Your task to perform on an android device: Open Youtube and go to the subscriptions tab Image 0: 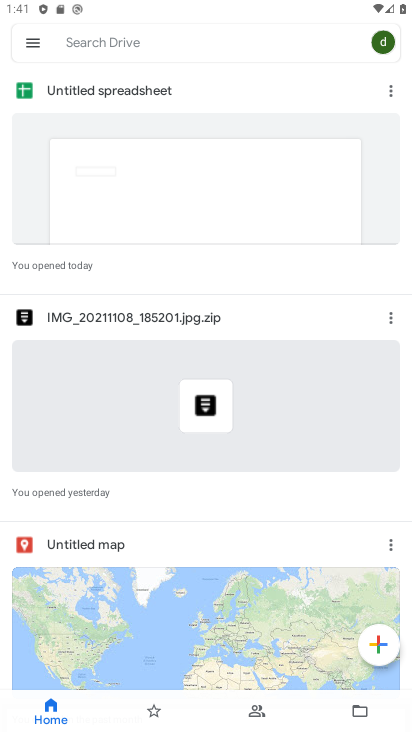
Step 0: press home button
Your task to perform on an android device: Open Youtube and go to the subscriptions tab Image 1: 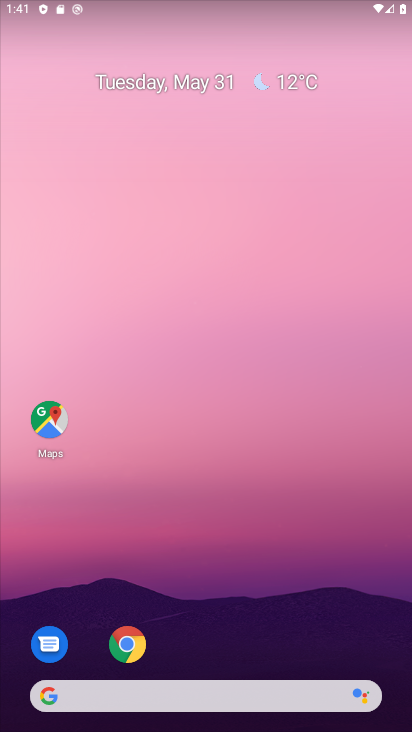
Step 1: drag from (162, 677) to (267, 149)
Your task to perform on an android device: Open Youtube and go to the subscriptions tab Image 2: 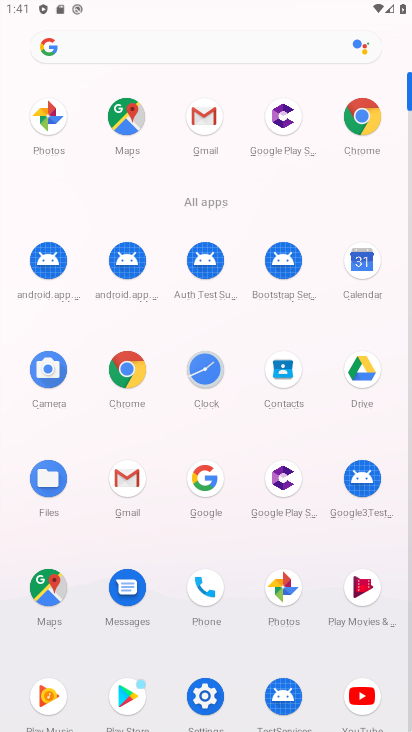
Step 2: click (370, 689)
Your task to perform on an android device: Open Youtube and go to the subscriptions tab Image 3: 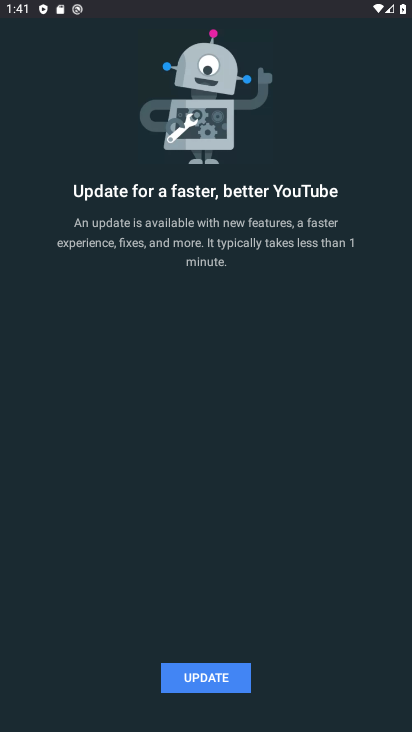
Step 3: click (223, 671)
Your task to perform on an android device: Open Youtube and go to the subscriptions tab Image 4: 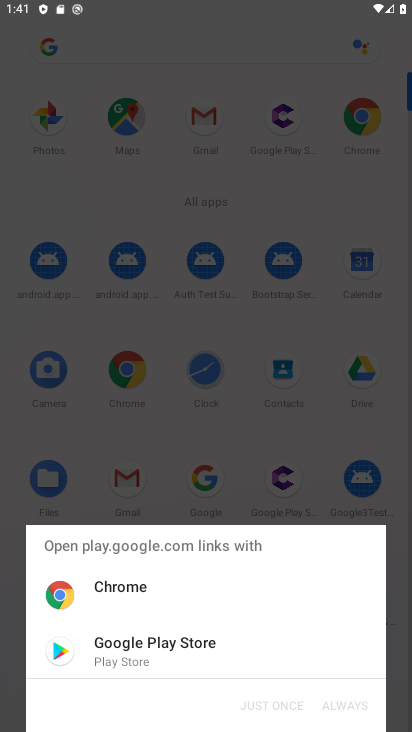
Step 4: click (261, 671)
Your task to perform on an android device: Open Youtube and go to the subscriptions tab Image 5: 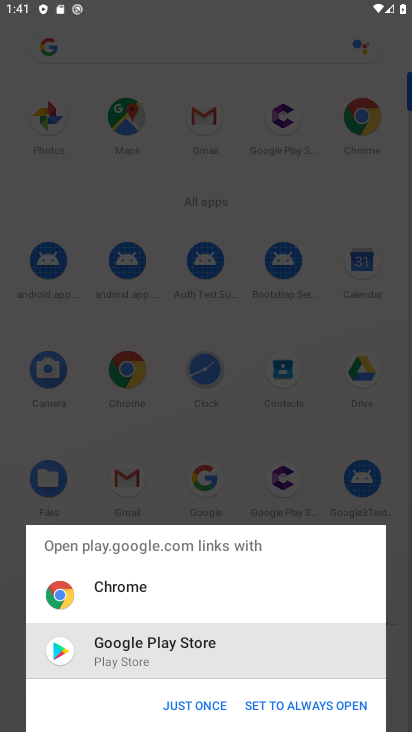
Step 5: click (204, 698)
Your task to perform on an android device: Open Youtube and go to the subscriptions tab Image 6: 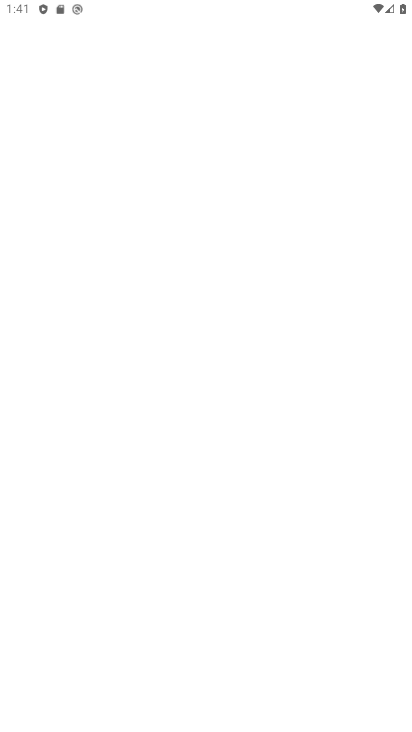
Step 6: click (204, 698)
Your task to perform on an android device: Open Youtube and go to the subscriptions tab Image 7: 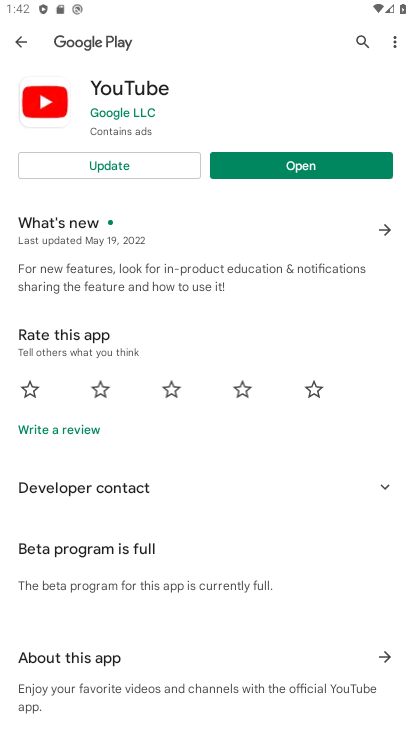
Step 7: click (167, 158)
Your task to perform on an android device: Open Youtube and go to the subscriptions tab Image 8: 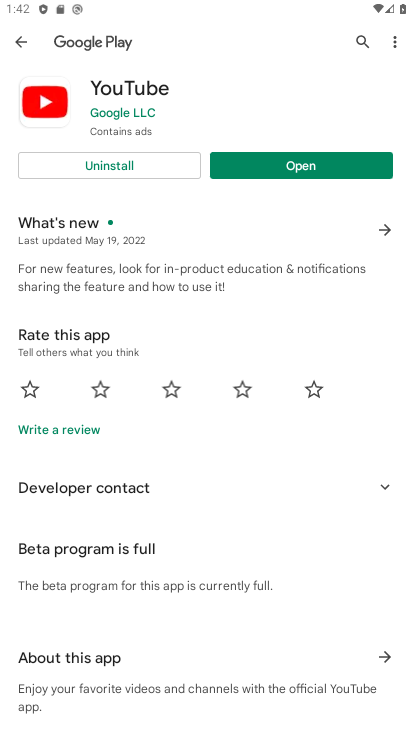
Step 8: click (329, 160)
Your task to perform on an android device: Open Youtube and go to the subscriptions tab Image 9: 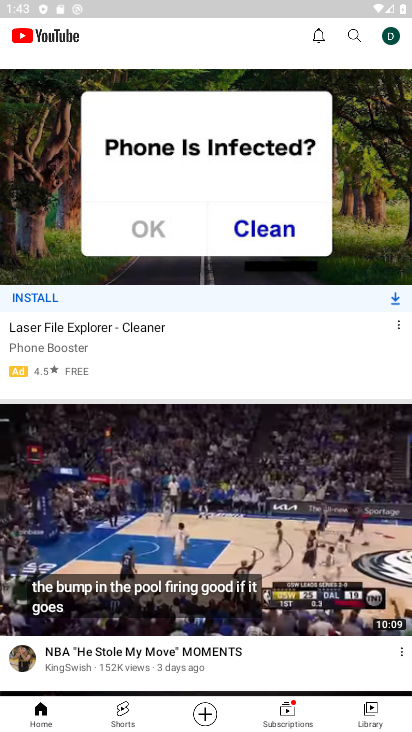
Step 9: click (303, 718)
Your task to perform on an android device: Open Youtube and go to the subscriptions tab Image 10: 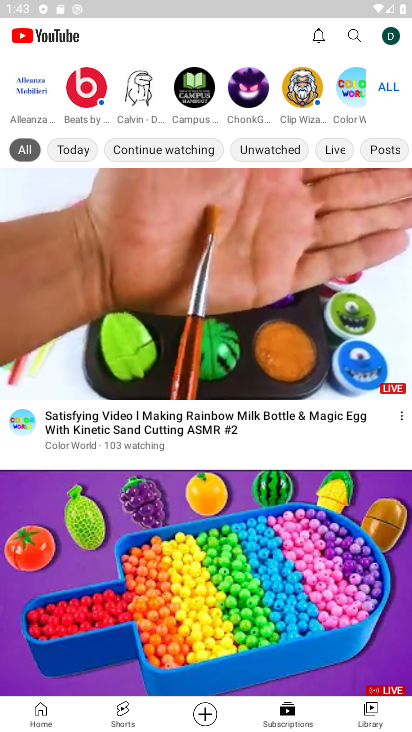
Step 10: task complete